Your task to perform on an android device: check google app version Image 0: 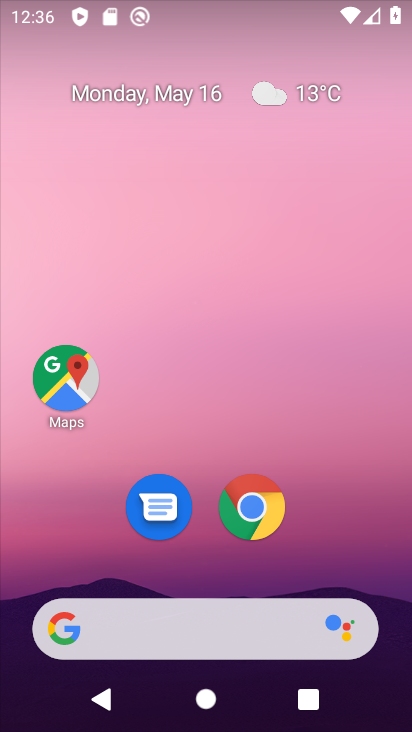
Step 0: drag from (200, 542) to (227, 150)
Your task to perform on an android device: check google app version Image 1: 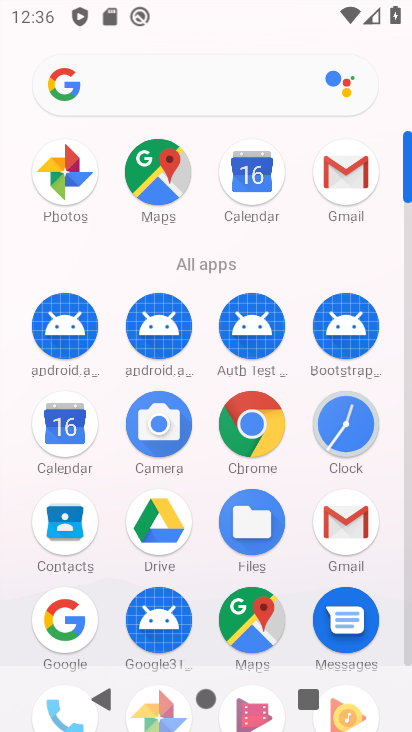
Step 1: drag from (187, 473) to (206, 174)
Your task to perform on an android device: check google app version Image 2: 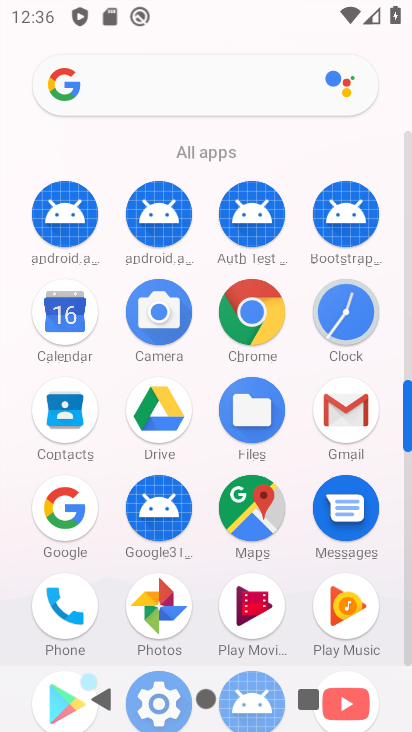
Step 2: drag from (213, 467) to (252, 233)
Your task to perform on an android device: check google app version Image 3: 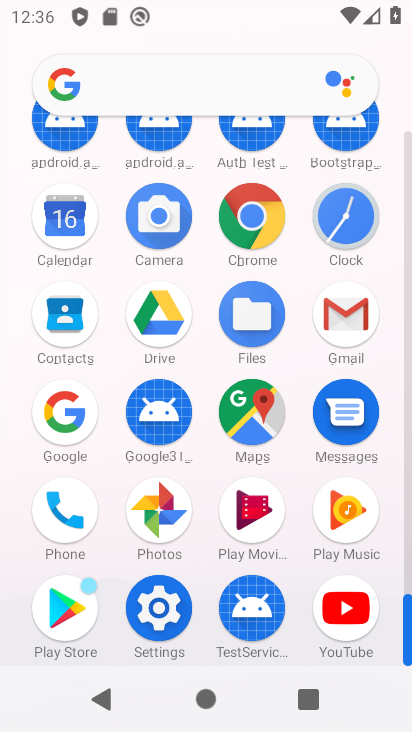
Step 3: click (66, 399)
Your task to perform on an android device: check google app version Image 4: 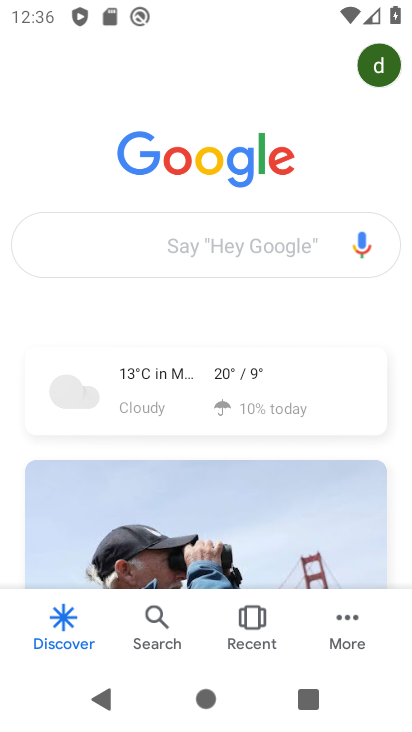
Step 4: click (349, 621)
Your task to perform on an android device: check google app version Image 5: 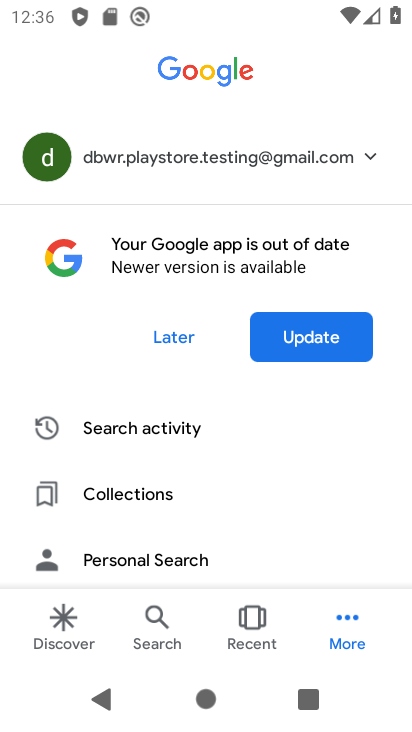
Step 5: drag from (280, 549) to (272, 227)
Your task to perform on an android device: check google app version Image 6: 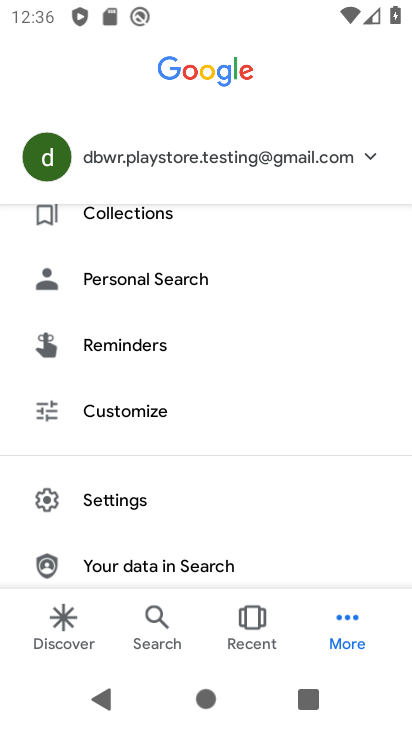
Step 6: drag from (248, 514) to (251, 281)
Your task to perform on an android device: check google app version Image 7: 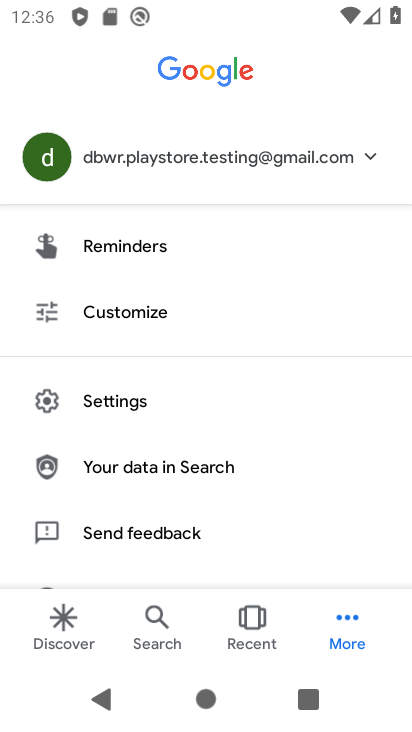
Step 7: drag from (235, 280) to (265, 232)
Your task to perform on an android device: check google app version Image 8: 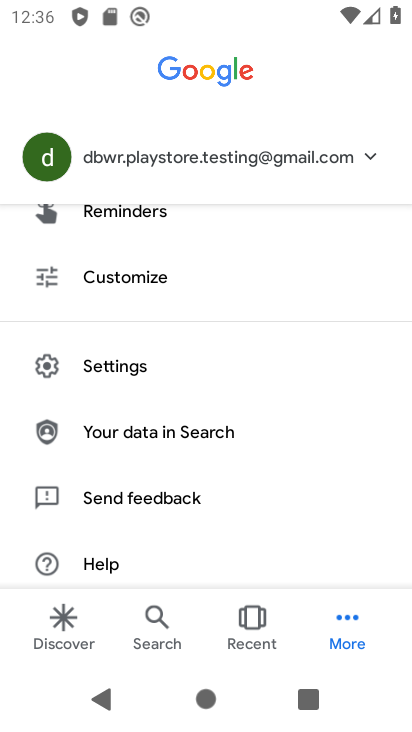
Step 8: drag from (266, 463) to (299, 241)
Your task to perform on an android device: check google app version Image 9: 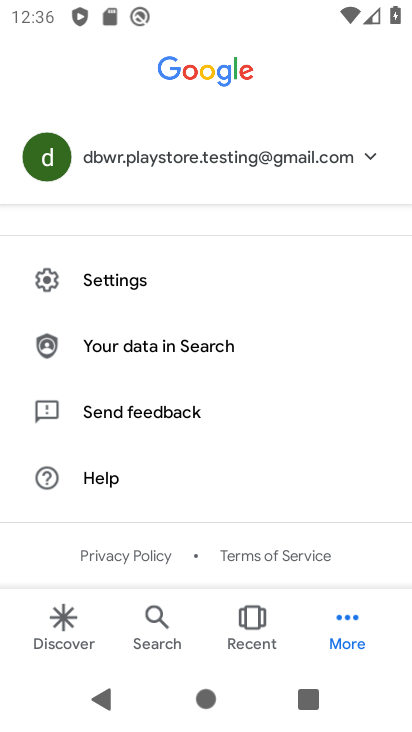
Step 9: click (151, 490)
Your task to perform on an android device: check google app version Image 10: 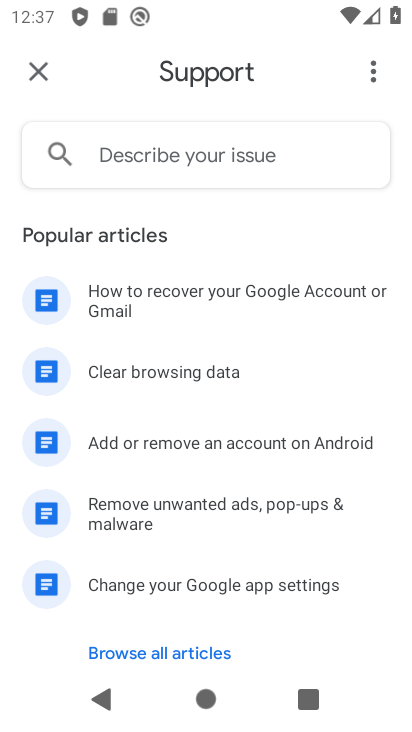
Step 10: click (42, 77)
Your task to perform on an android device: check google app version Image 11: 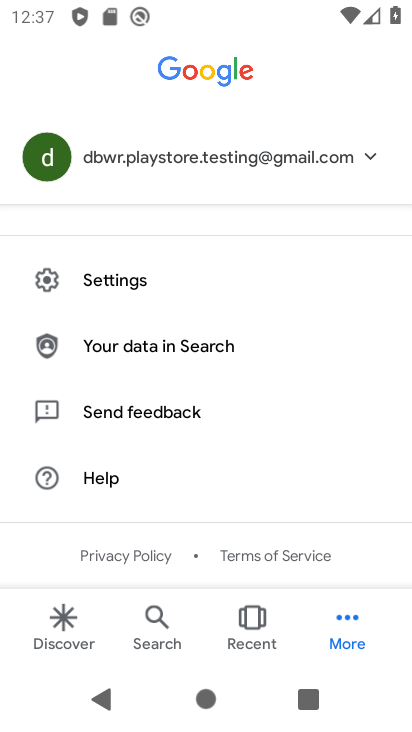
Step 11: drag from (189, 500) to (242, 237)
Your task to perform on an android device: check google app version Image 12: 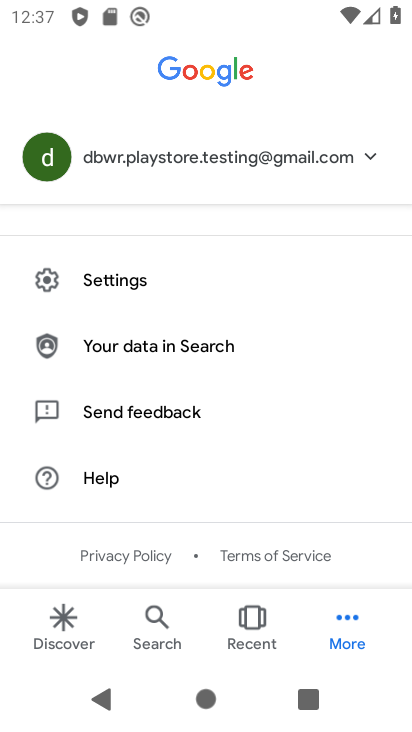
Step 12: click (113, 475)
Your task to perform on an android device: check google app version Image 13: 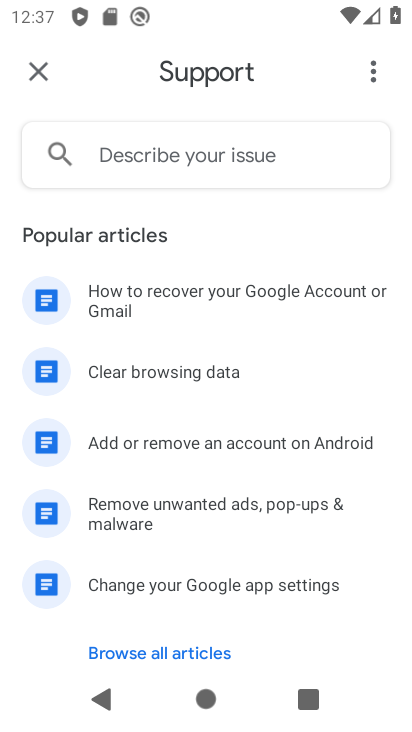
Step 13: click (102, 472)
Your task to perform on an android device: check google app version Image 14: 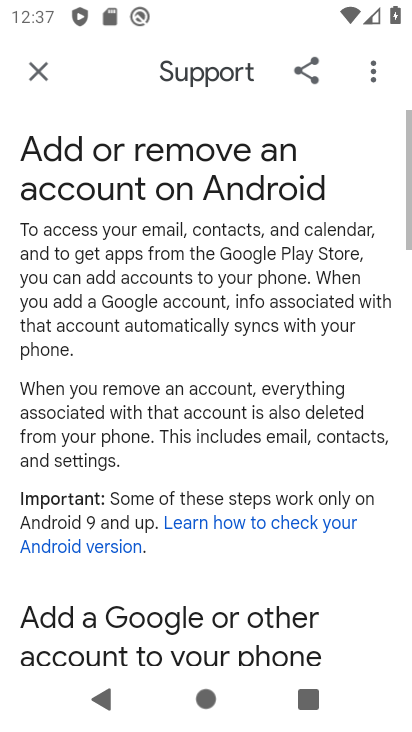
Step 14: click (45, 65)
Your task to perform on an android device: check google app version Image 15: 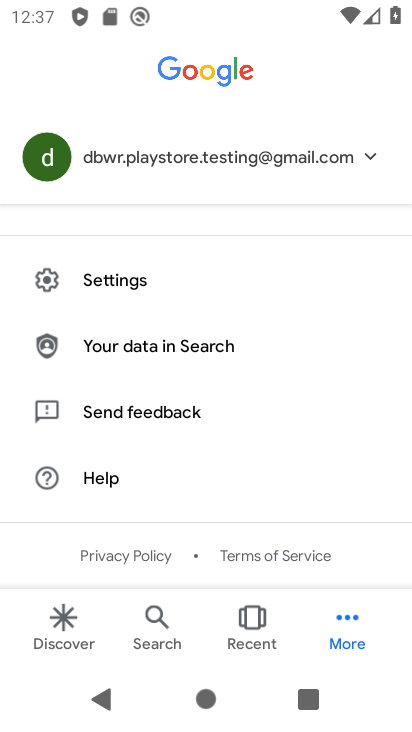
Step 15: click (107, 284)
Your task to perform on an android device: check google app version Image 16: 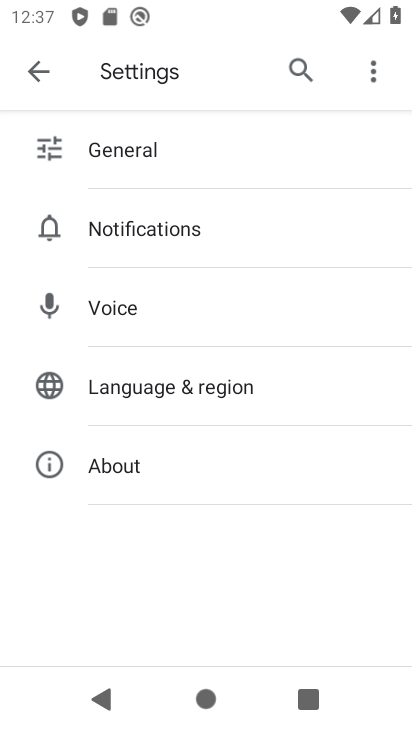
Step 16: click (110, 144)
Your task to perform on an android device: check google app version Image 17: 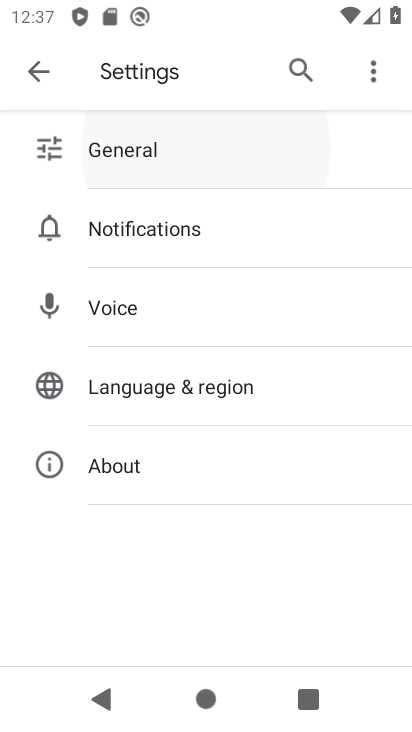
Step 17: drag from (110, 144) to (237, 339)
Your task to perform on an android device: check google app version Image 18: 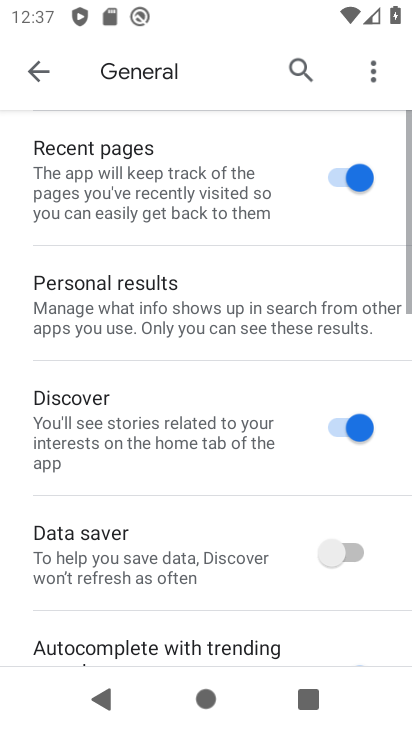
Step 18: click (41, 64)
Your task to perform on an android device: check google app version Image 19: 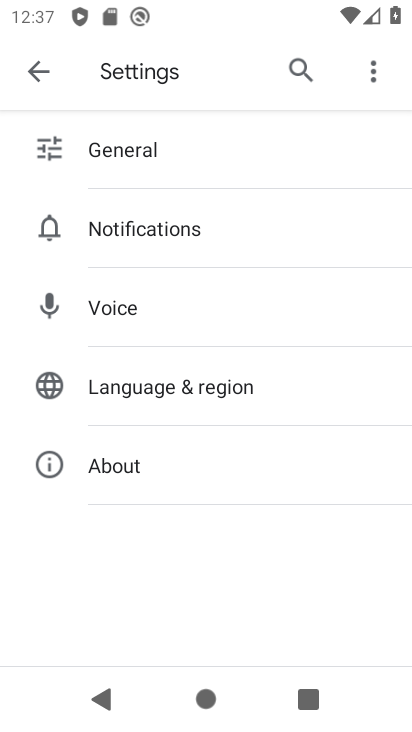
Step 19: click (128, 472)
Your task to perform on an android device: check google app version Image 20: 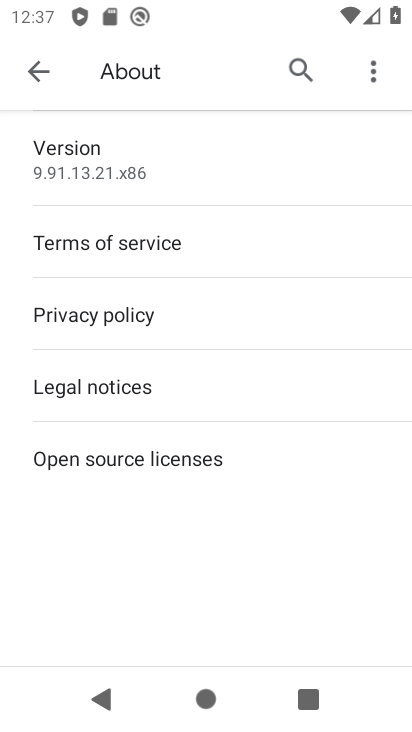
Step 20: click (134, 178)
Your task to perform on an android device: check google app version Image 21: 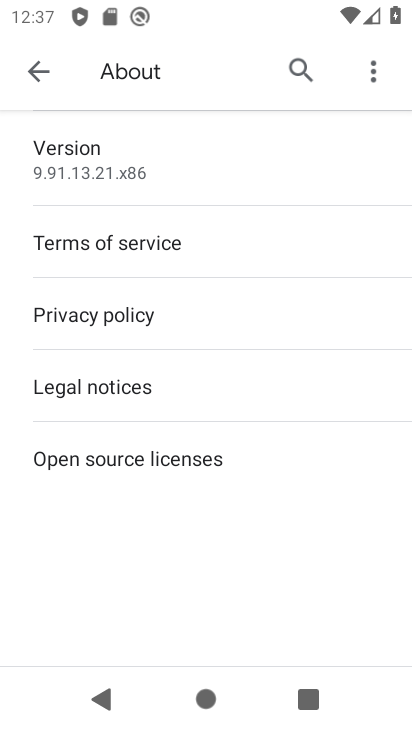
Step 21: click (90, 176)
Your task to perform on an android device: check google app version Image 22: 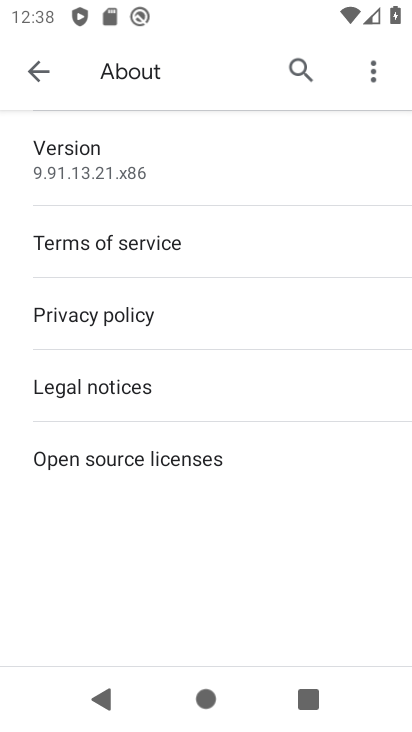
Step 22: click (167, 184)
Your task to perform on an android device: check google app version Image 23: 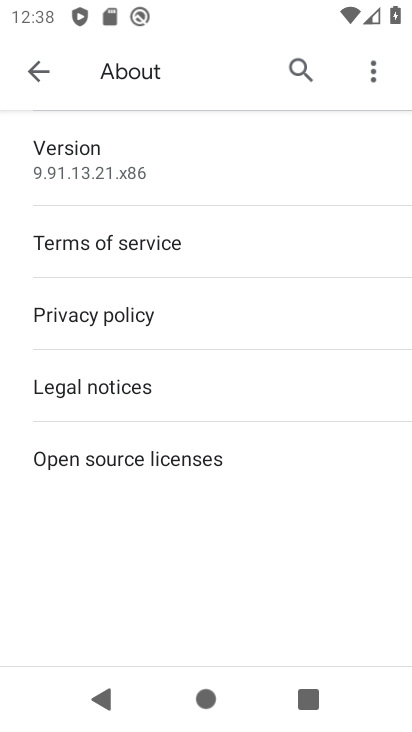
Step 23: task complete